Your task to perform on an android device: Go to battery settings Image 0: 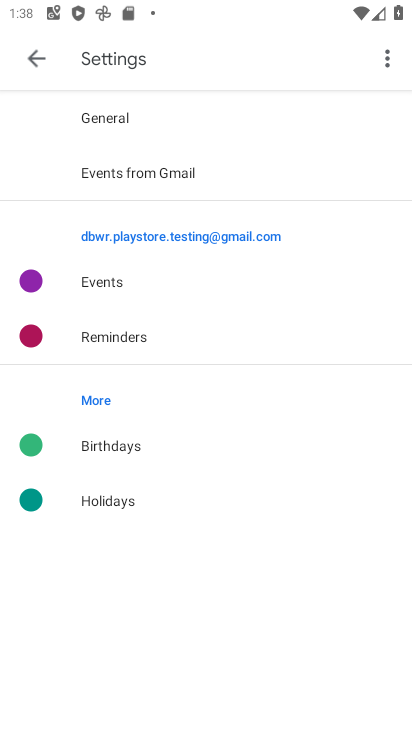
Step 0: press home button
Your task to perform on an android device: Go to battery settings Image 1: 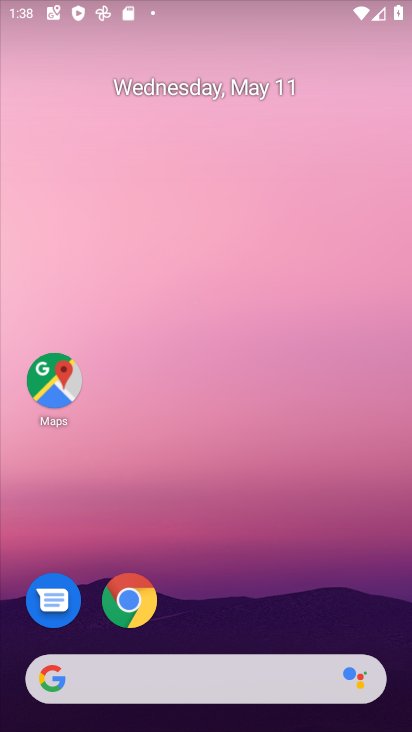
Step 1: drag from (203, 716) to (255, 123)
Your task to perform on an android device: Go to battery settings Image 2: 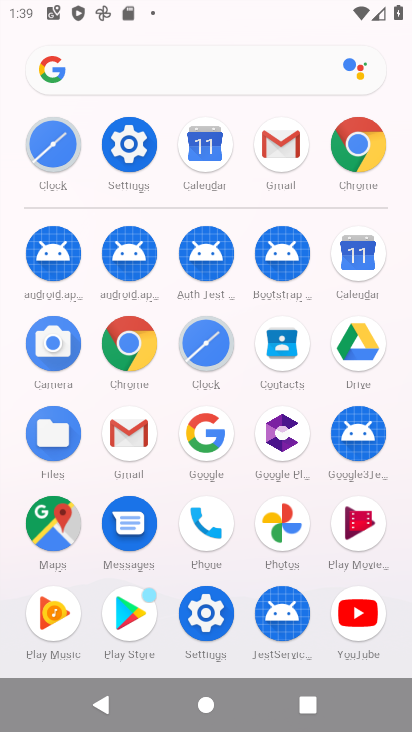
Step 2: click (118, 146)
Your task to perform on an android device: Go to battery settings Image 3: 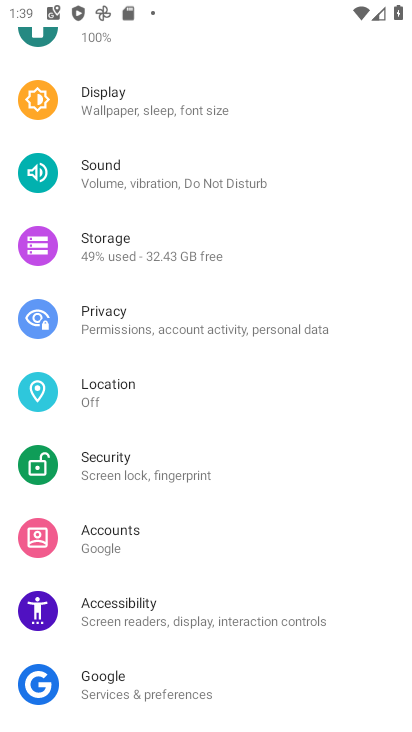
Step 3: drag from (232, 194) to (239, 638)
Your task to perform on an android device: Go to battery settings Image 4: 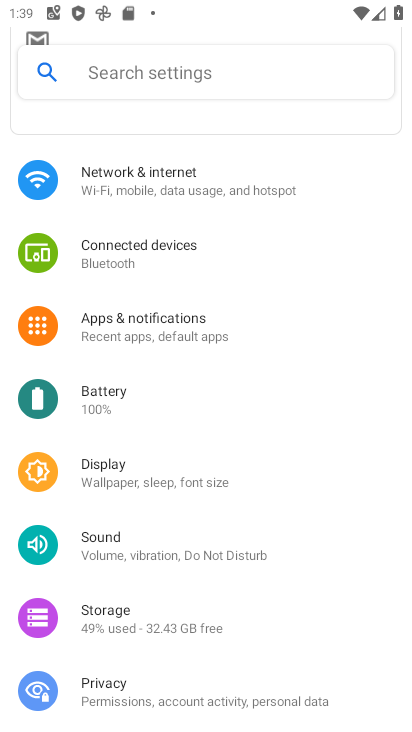
Step 4: click (106, 401)
Your task to perform on an android device: Go to battery settings Image 5: 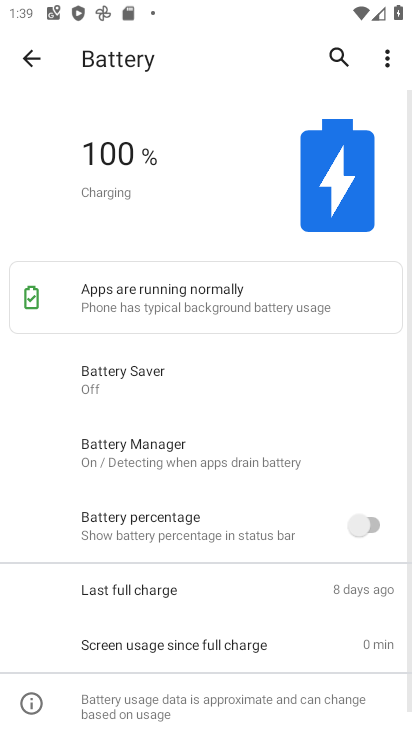
Step 5: task complete